Your task to perform on an android device: open app "Spotify: Music and Podcasts" (install if not already installed) and go to login screen Image 0: 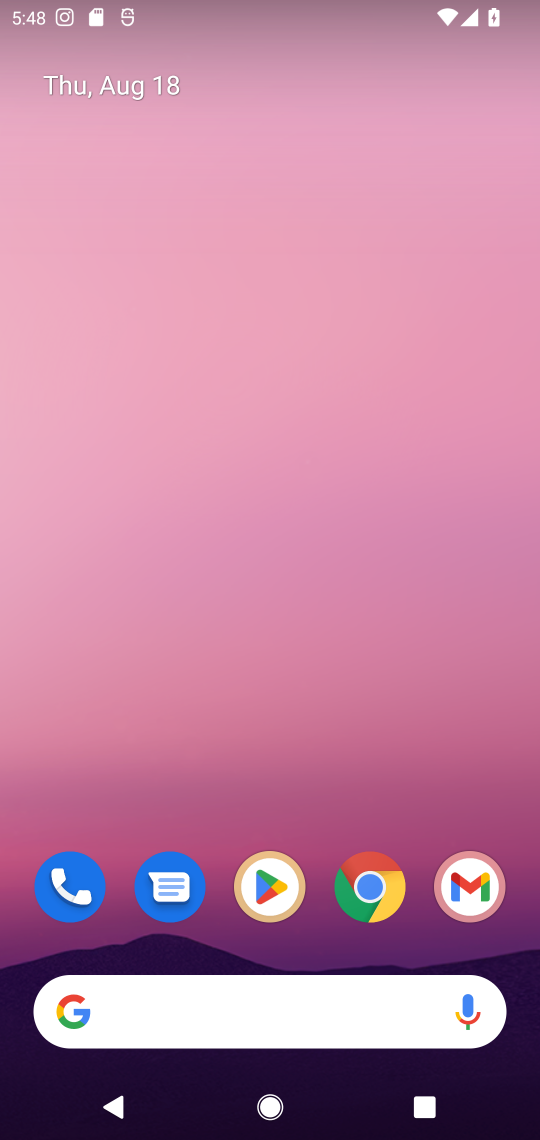
Step 0: click (259, 883)
Your task to perform on an android device: open app "Spotify: Music and Podcasts" (install if not already installed) and go to login screen Image 1: 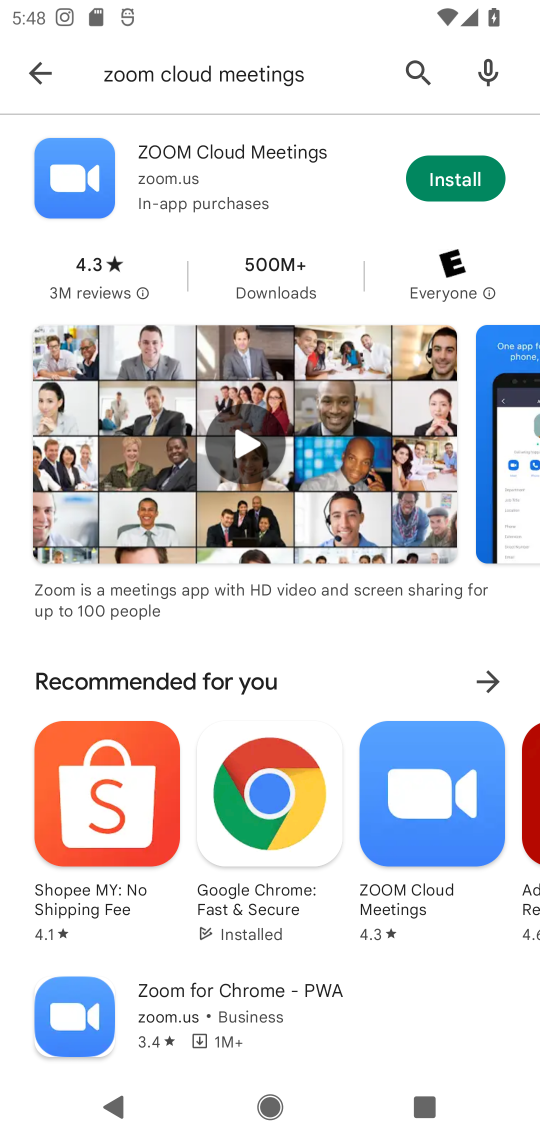
Step 1: click (411, 65)
Your task to perform on an android device: open app "Spotify: Music and Podcasts" (install if not already installed) and go to login screen Image 2: 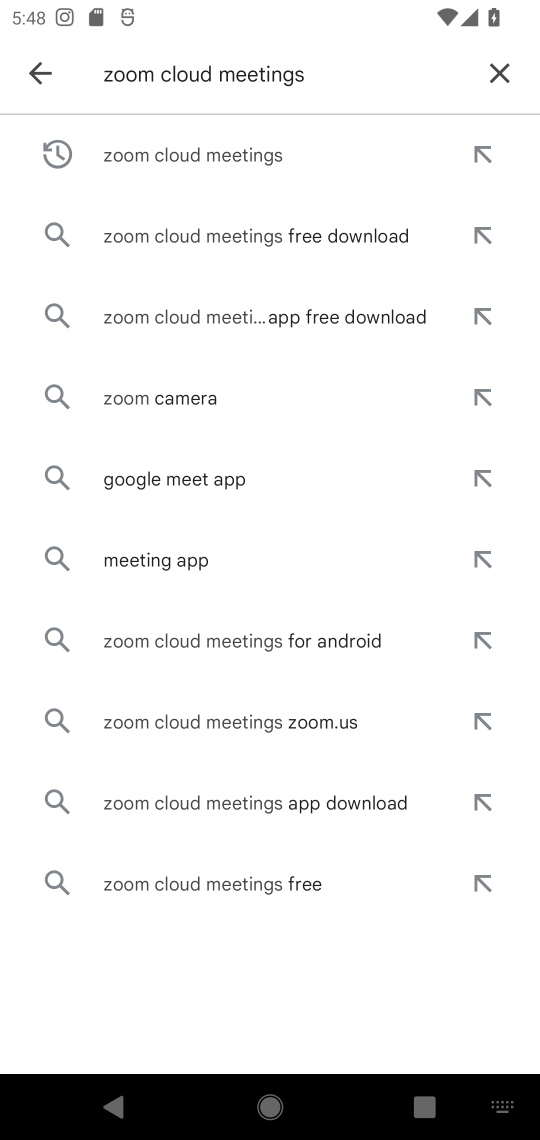
Step 2: click (497, 63)
Your task to perform on an android device: open app "Spotify: Music and Podcasts" (install if not already installed) and go to login screen Image 3: 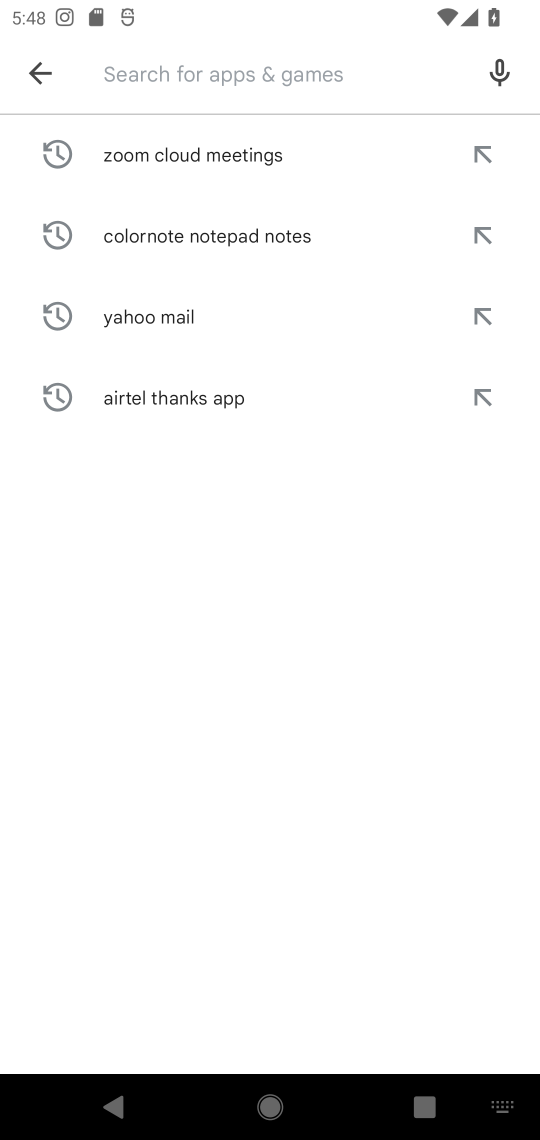
Step 3: type "Spotify: Music and Podcasts"
Your task to perform on an android device: open app "Spotify: Music and Podcasts" (install if not already installed) and go to login screen Image 4: 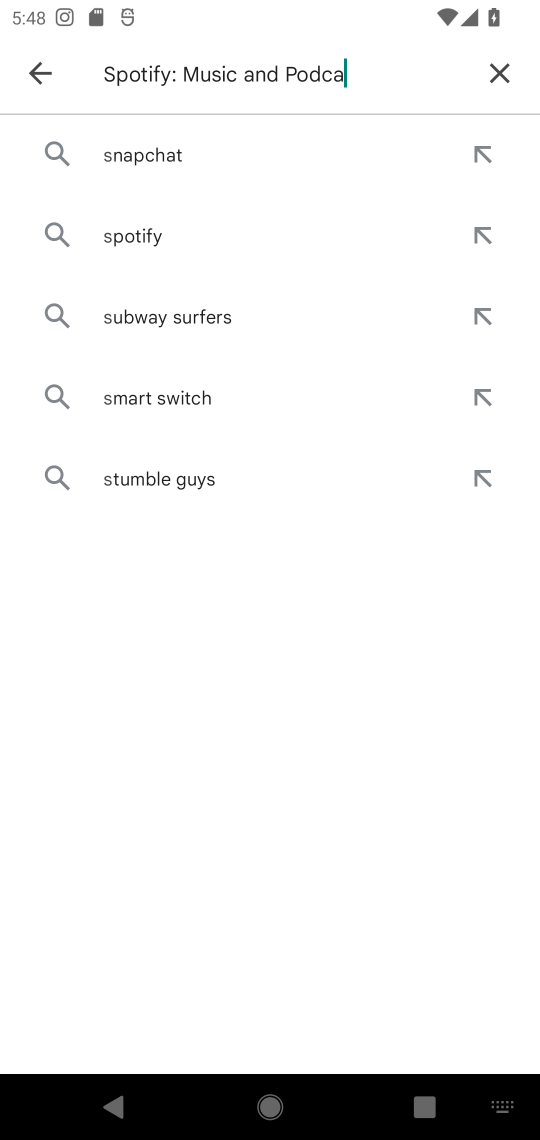
Step 4: type ""
Your task to perform on an android device: open app "Spotify: Music and Podcasts" (install if not already installed) and go to login screen Image 5: 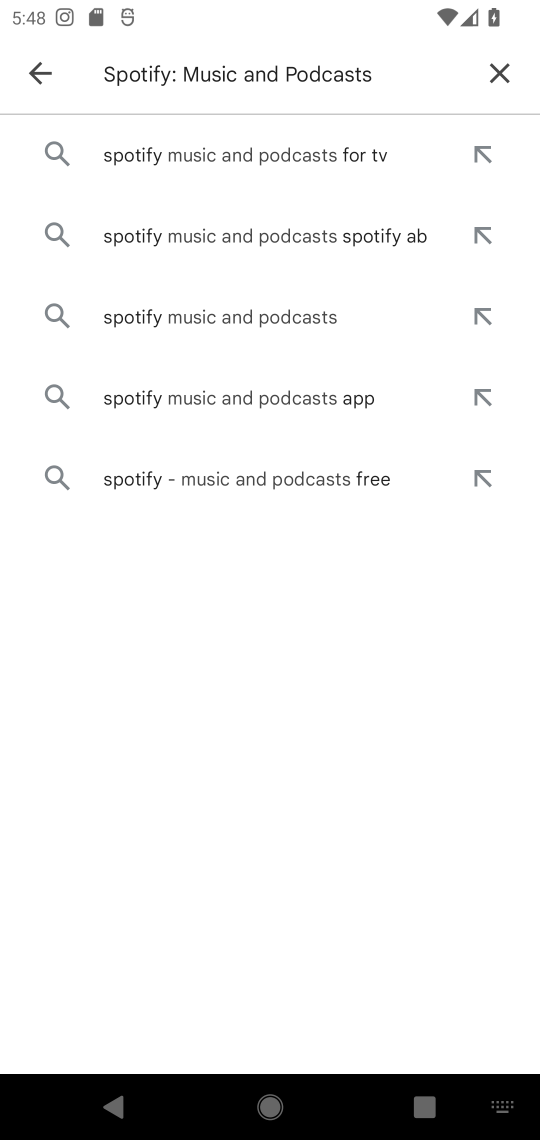
Step 5: click (208, 314)
Your task to perform on an android device: open app "Spotify: Music and Podcasts" (install if not already installed) and go to login screen Image 6: 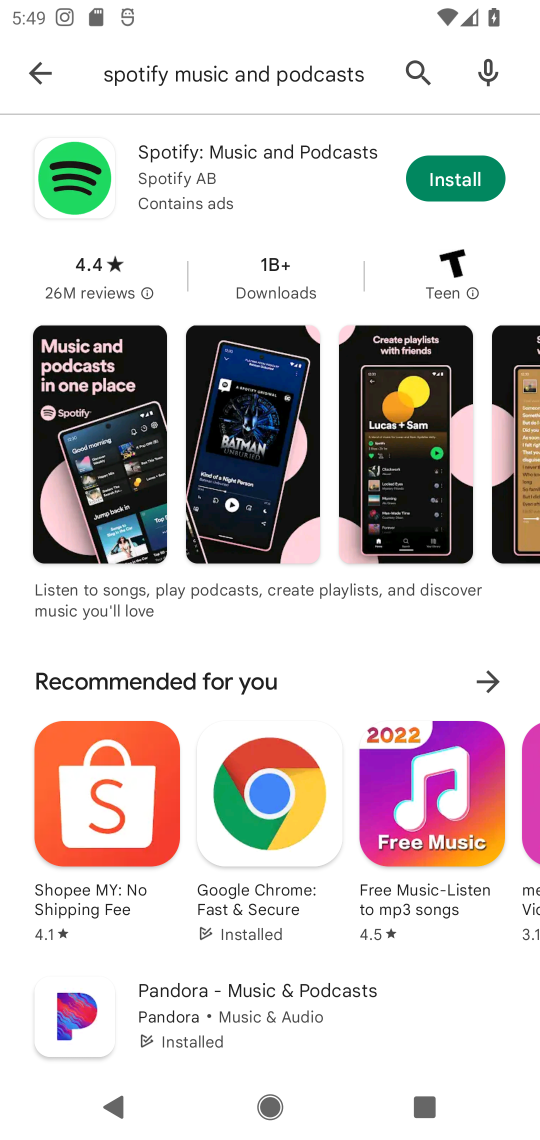
Step 6: click (477, 174)
Your task to perform on an android device: open app "Spotify: Music and Podcasts" (install if not already installed) and go to login screen Image 7: 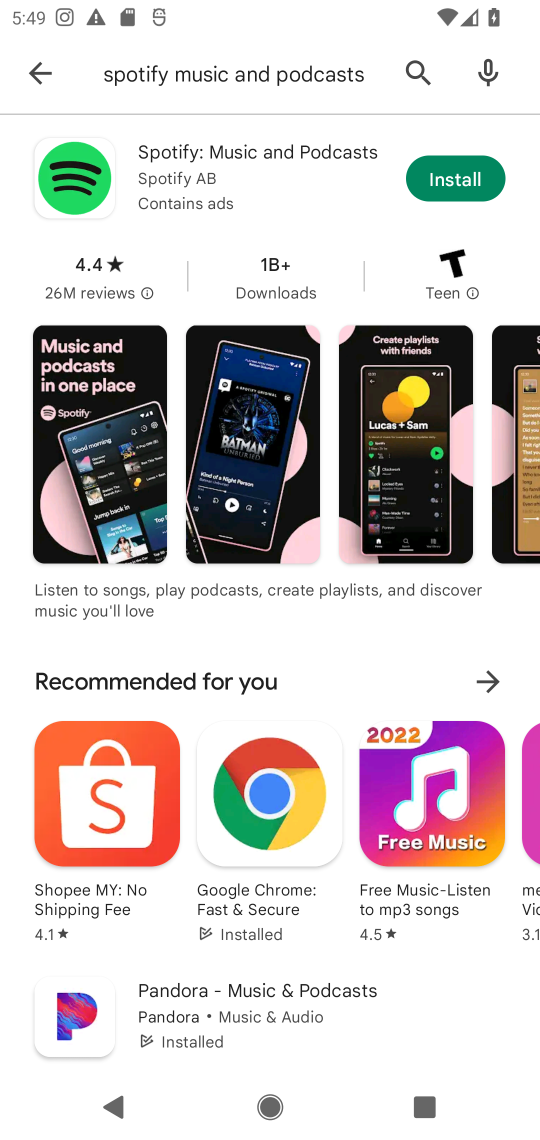
Step 7: click (451, 175)
Your task to perform on an android device: open app "Spotify: Music and Podcasts" (install if not already installed) and go to login screen Image 8: 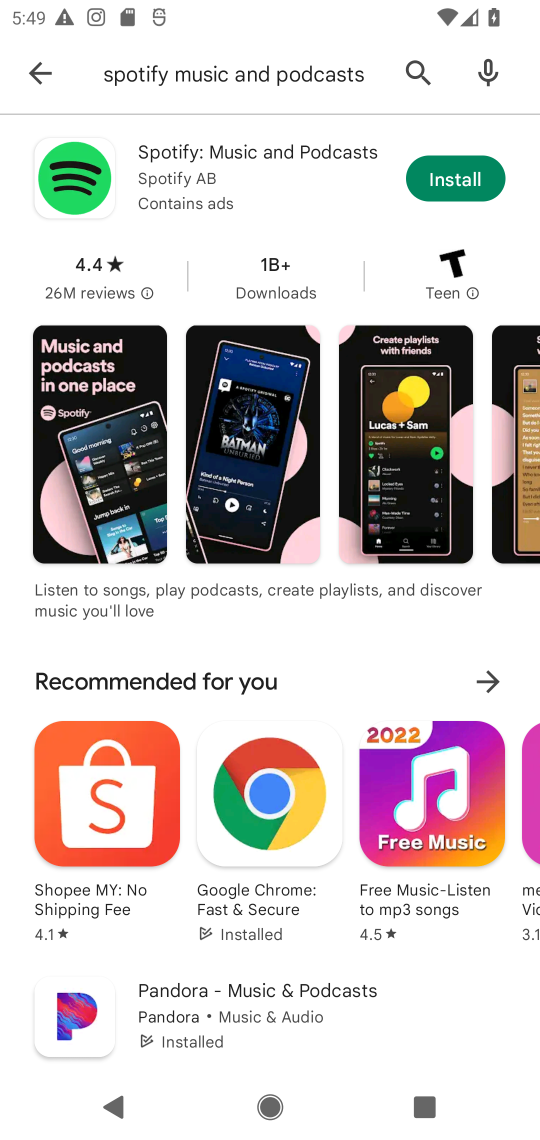
Step 8: click (453, 171)
Your task to perform on an android device: open app "Spotify: Music and Podcasts" (install if not already installed) and go to login screen Image 9: 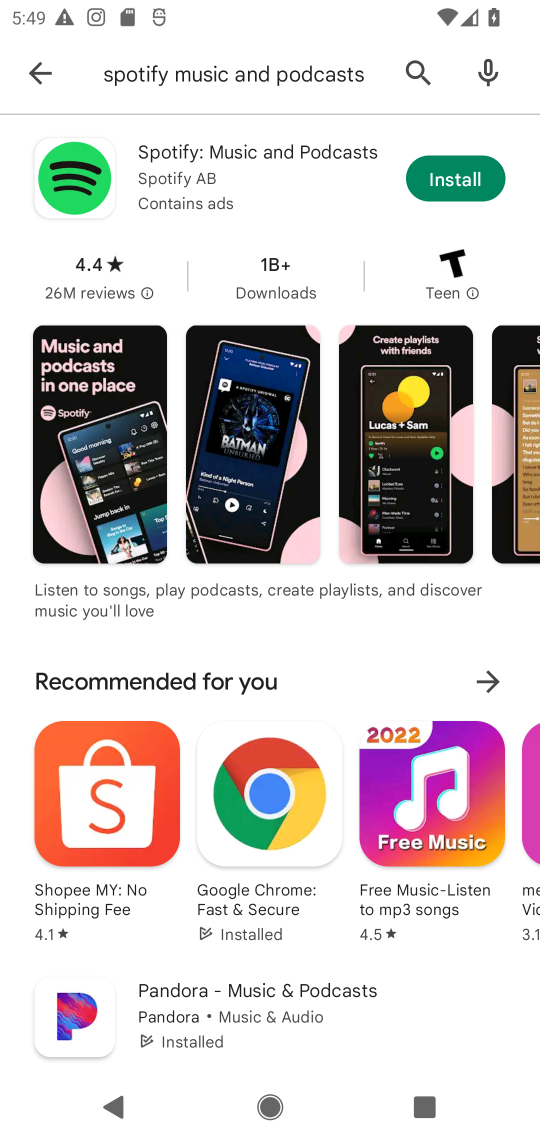
Step 9: task complete